Your task to perform on an android device: turn off sleep mode Image 0: 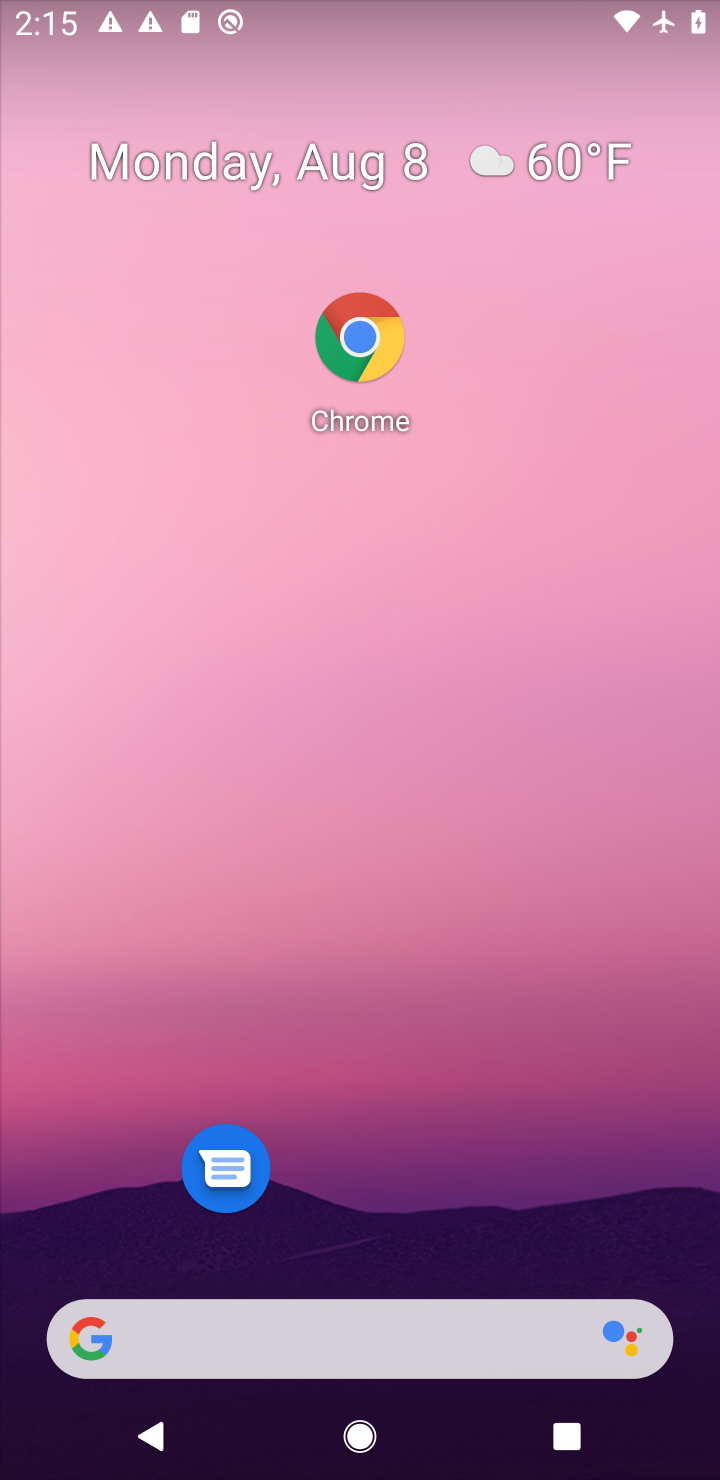
Step 0: drag from (411, 1243) to (549, 2)
Your task to perform on an android device: turn off sleep mode Image 1: 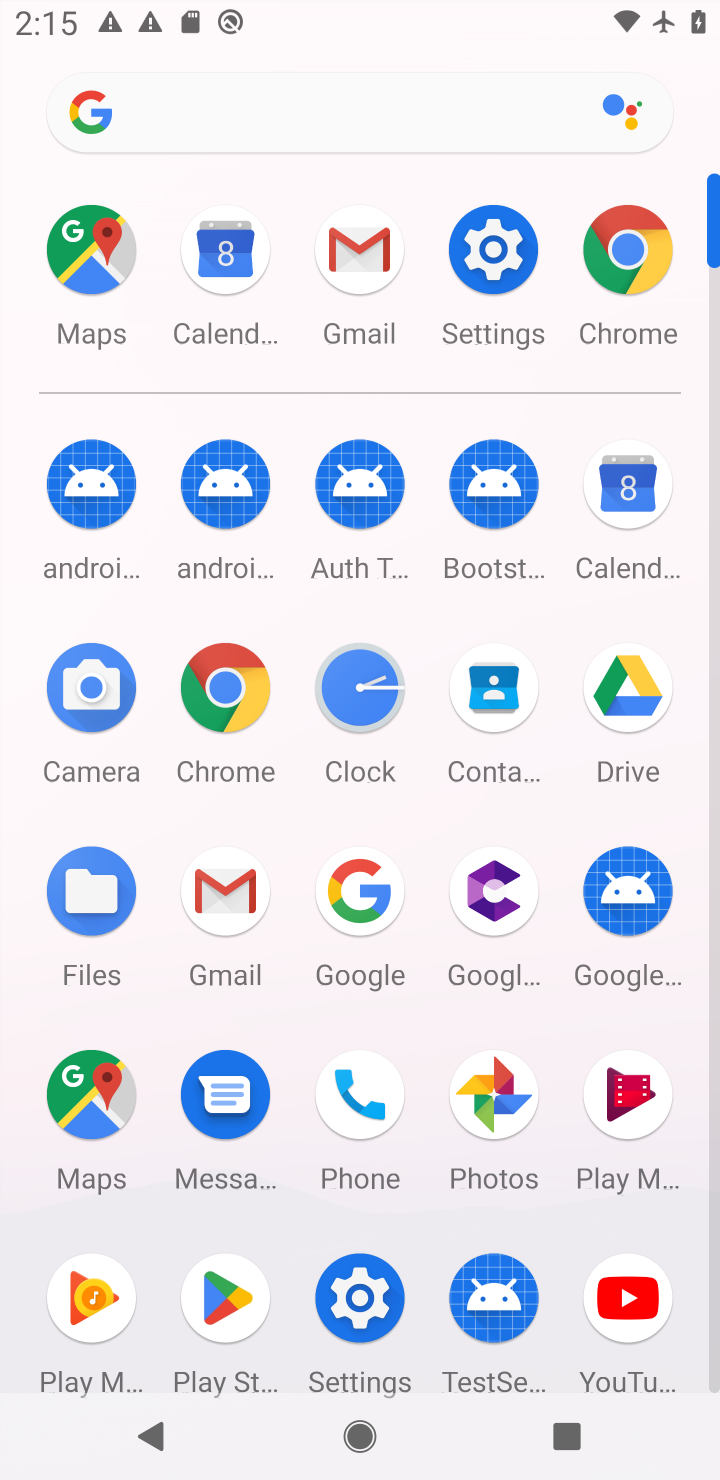
Step 1: click (466, 259)
Your task to perform on an android device: turn off sleep mode Image 2: 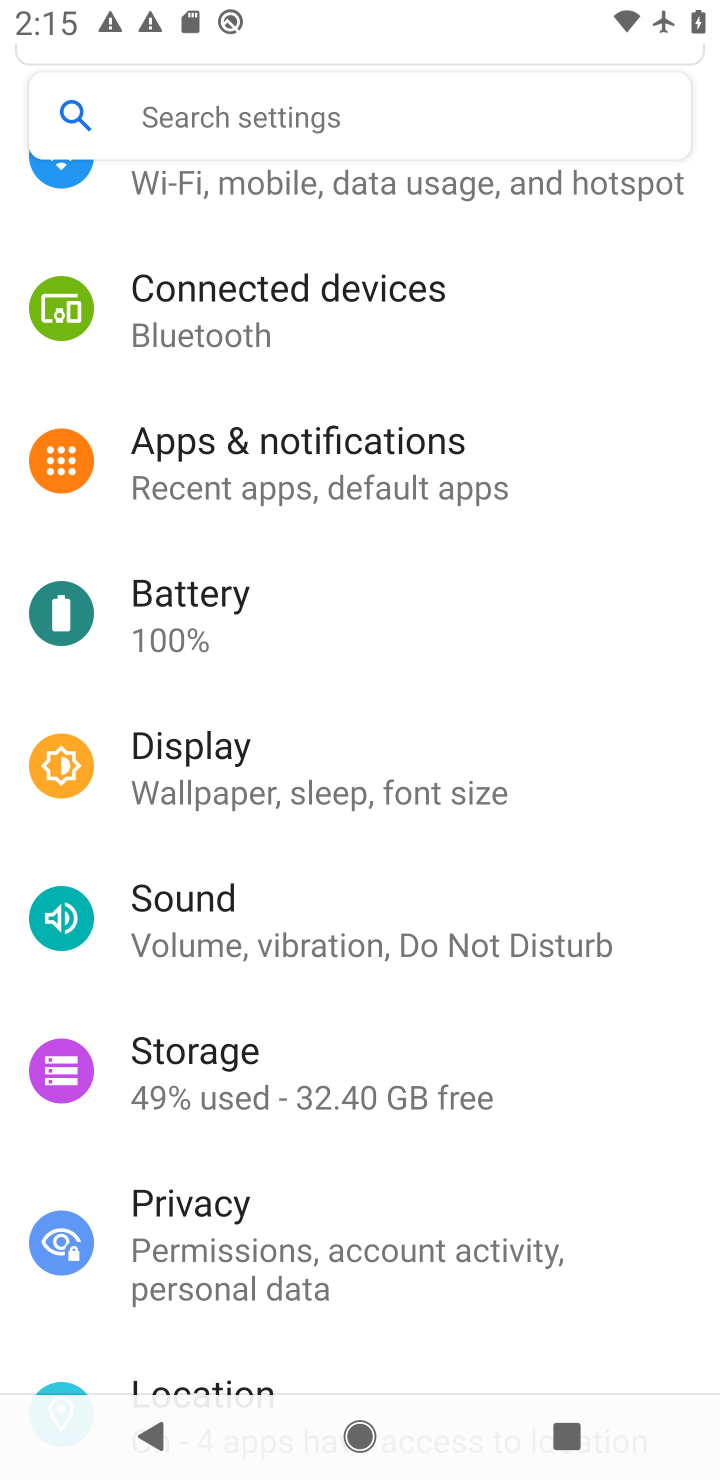
Step 2: click (400, 791)
Your task to perform on an android device: turn off sleep mode Image 3: 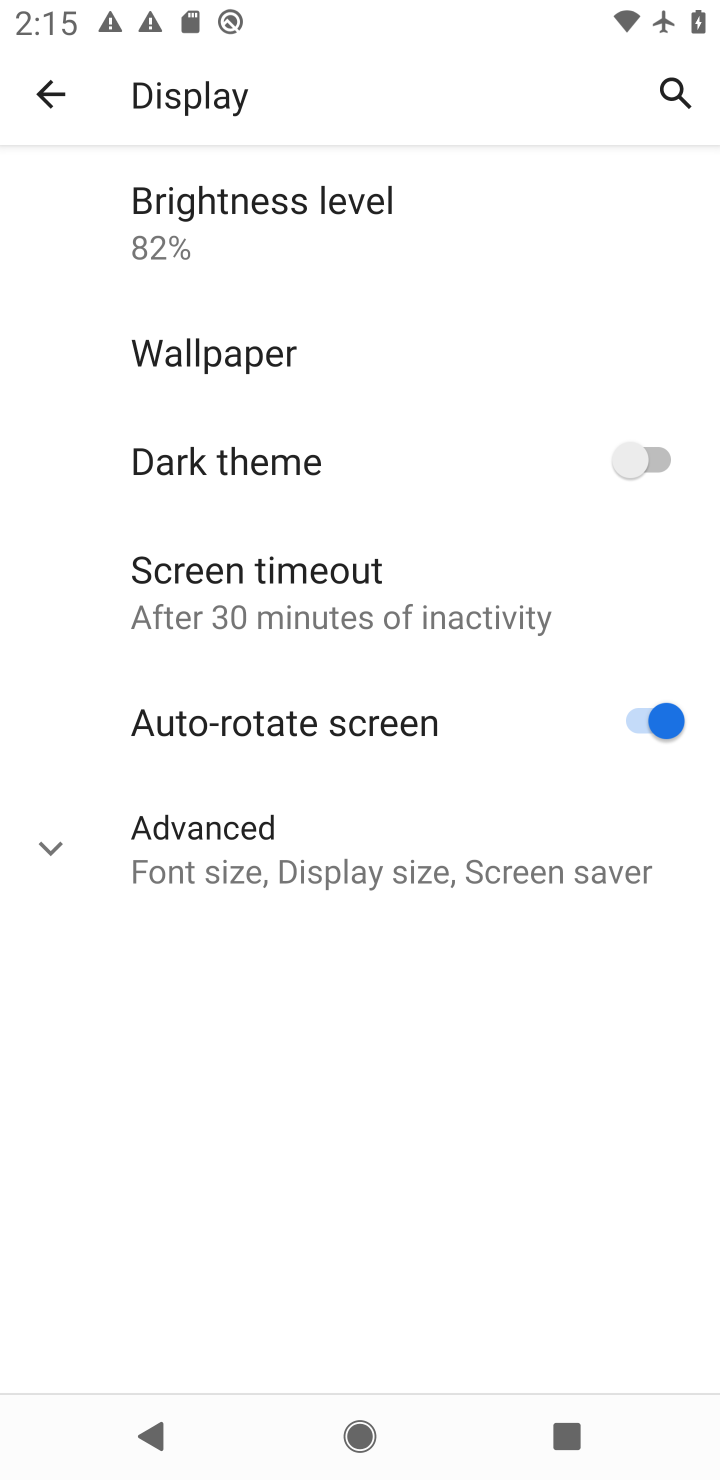
Step 3: click (402, 678)
Your task to perform on an android device: turn off sleep mode Image 4: 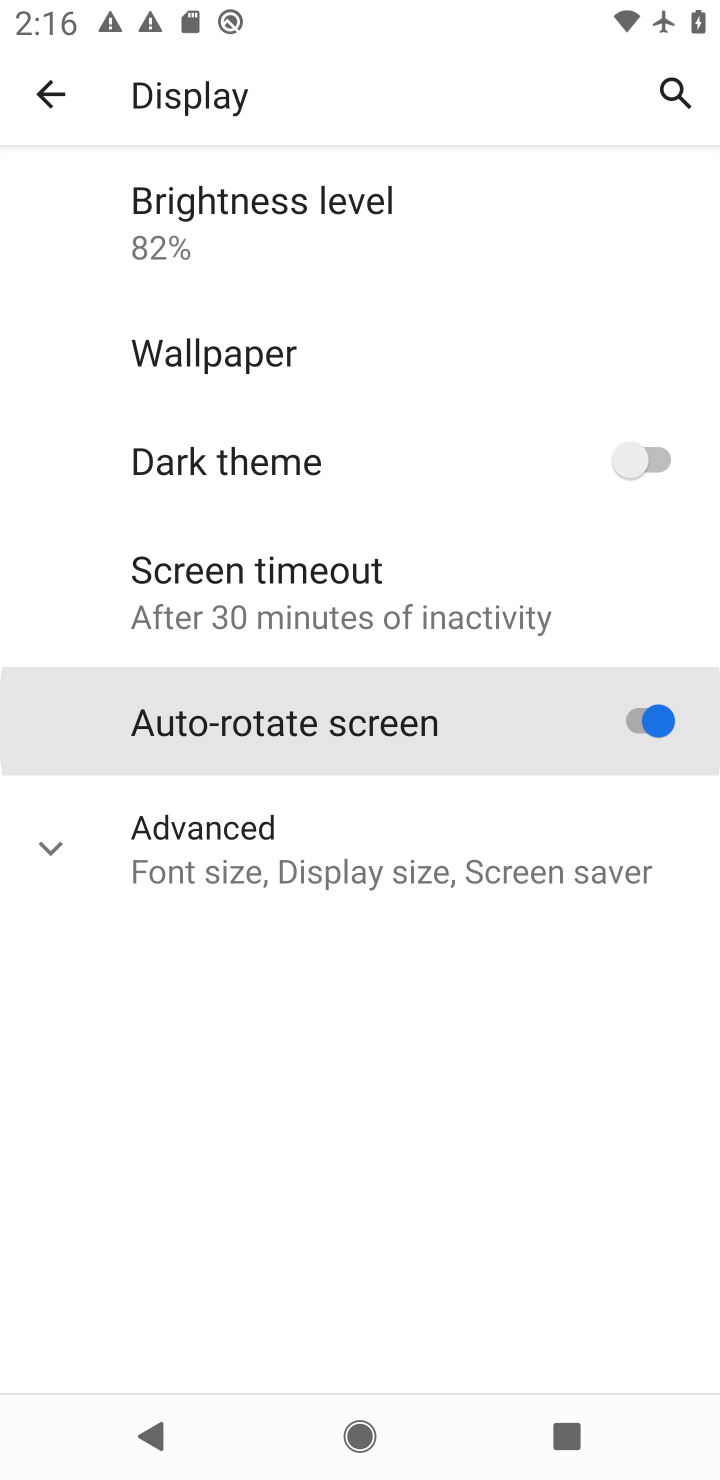
Step 4: click (402, 678)
Your task to perform on an android device: turn off sleep mode Image 5: 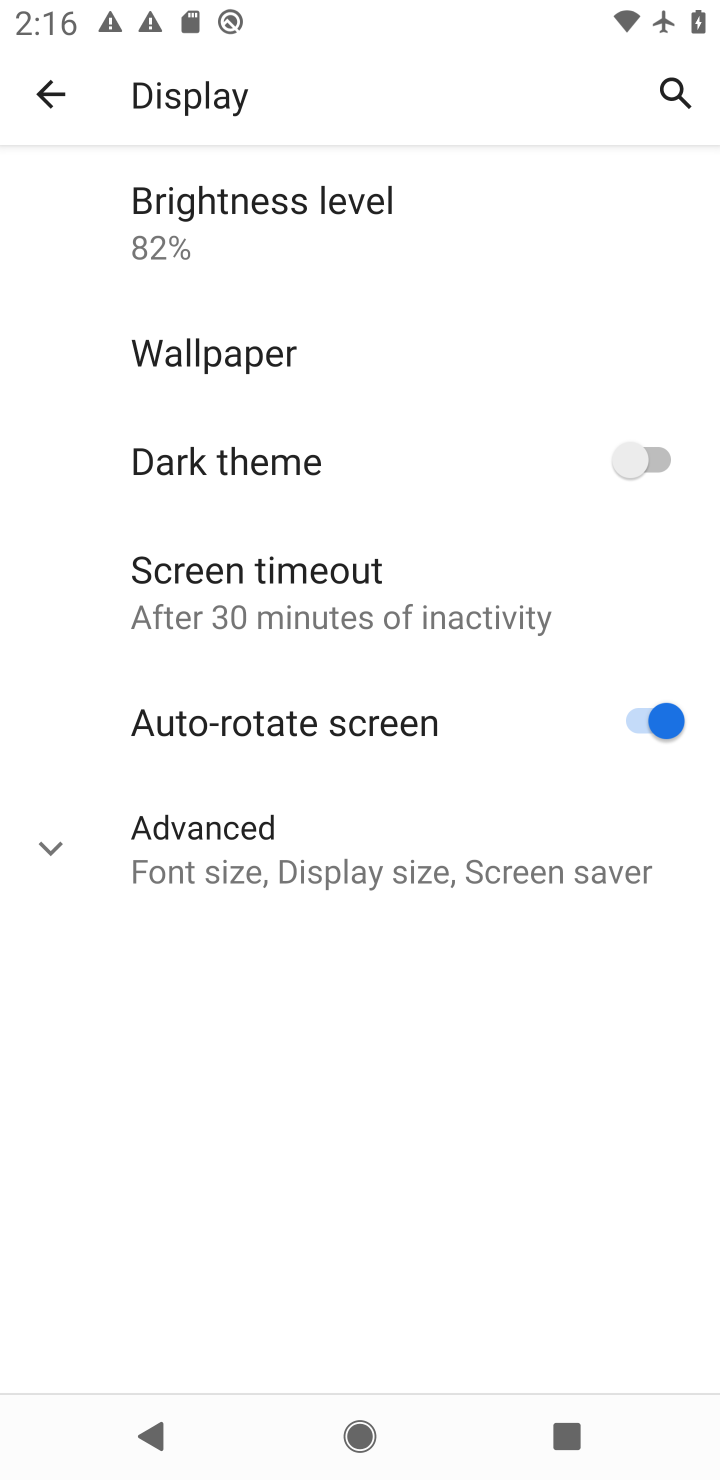
Step 5: click (456, 618)
Your task to perform on an android device: turn off sleep mode Image 6: 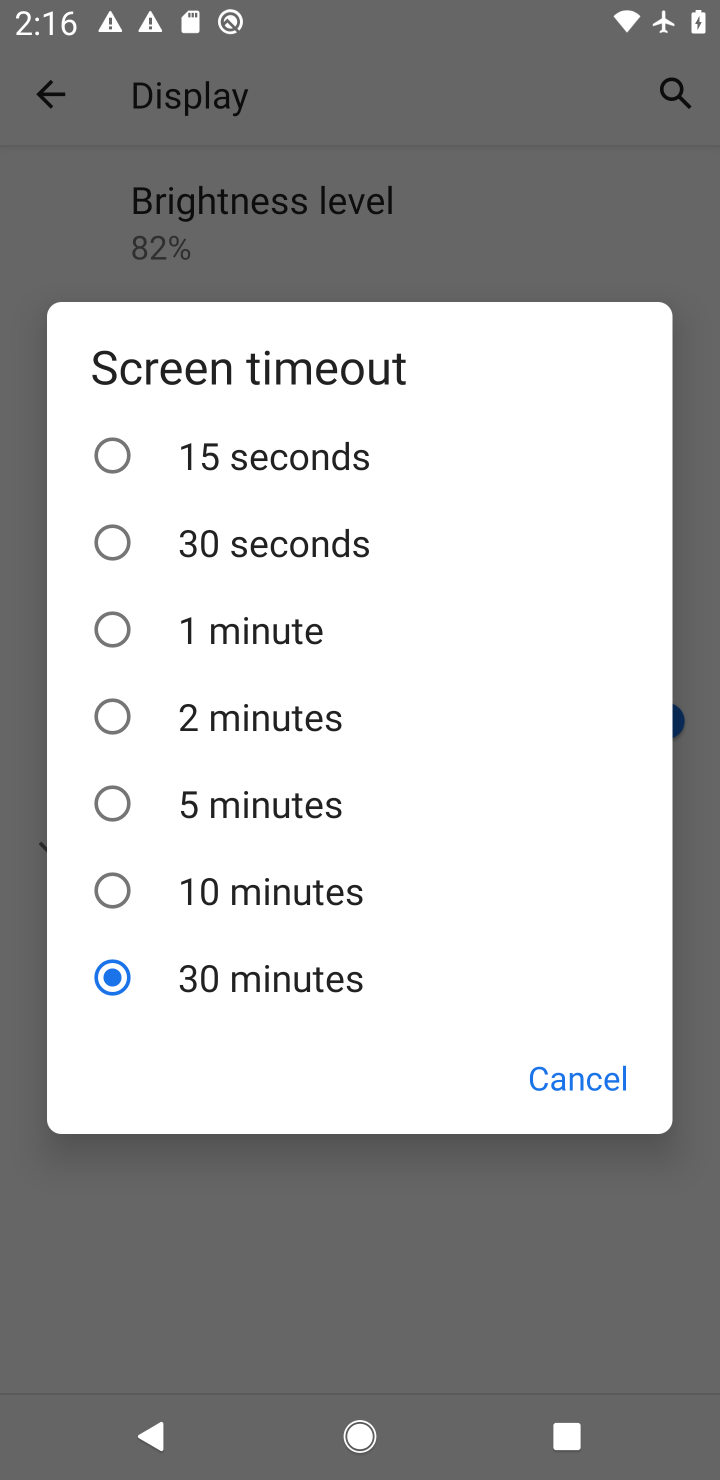
Step 6: click (412, 457)
Your task to perform on an android device: turn off sleep mode Image 7: 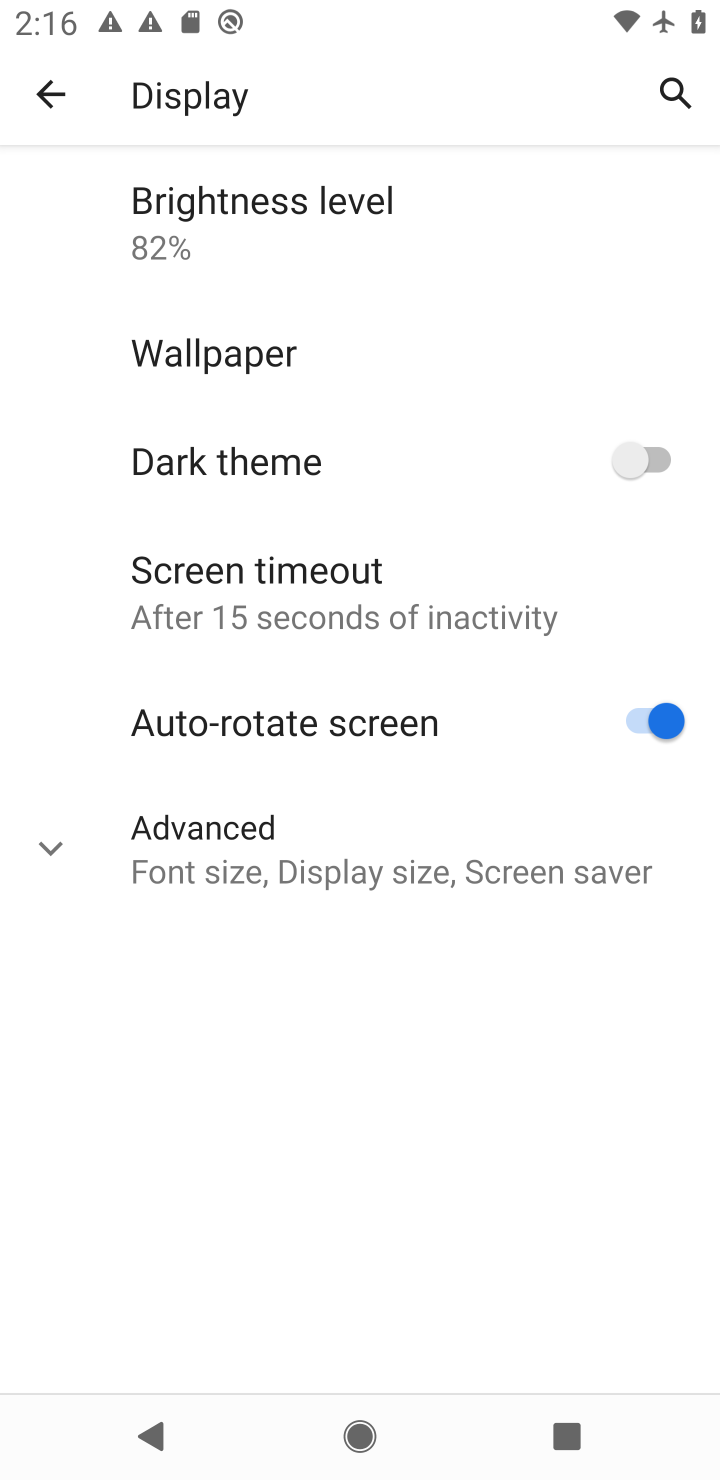
Step 7: task complete